Your task to perform on an android device: find photos in the google photos app Image 0: 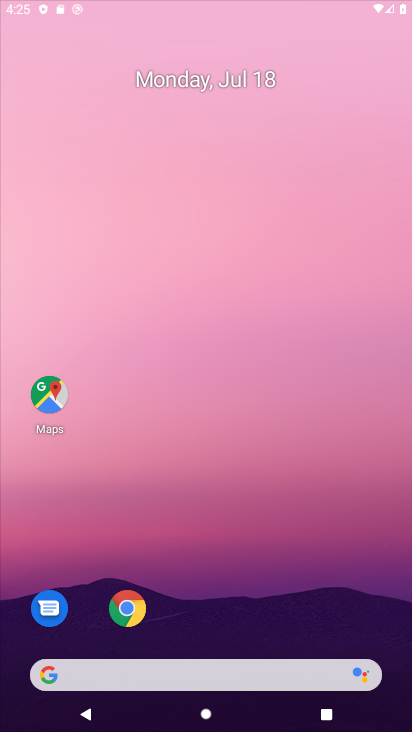
Step 0: click (156, 361)
Your task to perform on an android device: find photos in the google photos app Image 1: 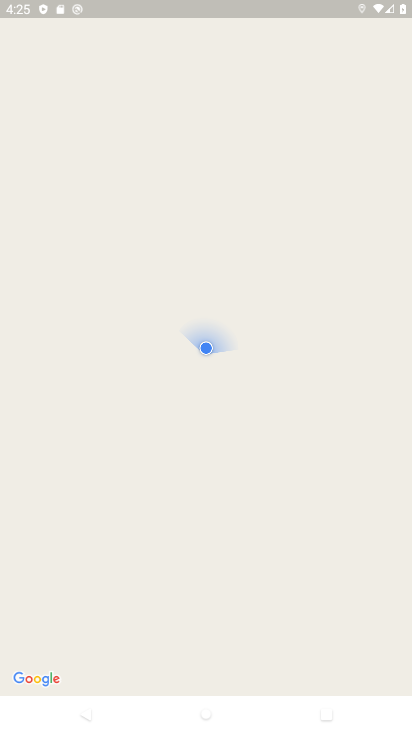
Step 1: press home button
Your task to perform on an android device: find photos in the google photos app Image 2: 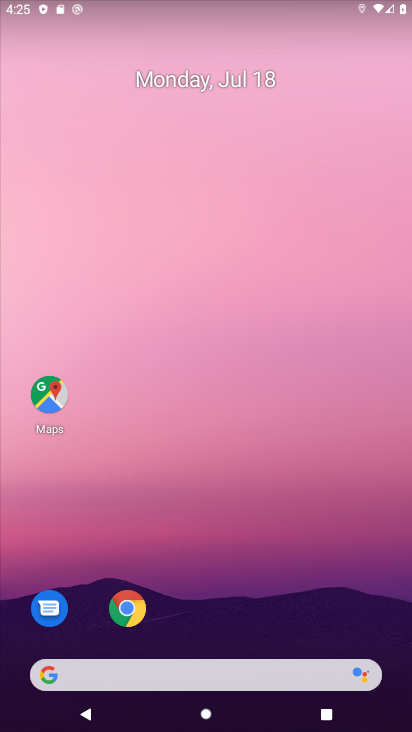
Step 2: drag from (36, 696) to (326, 250)
Your task to perform on an android device: find photos in the google photos app Image 3: 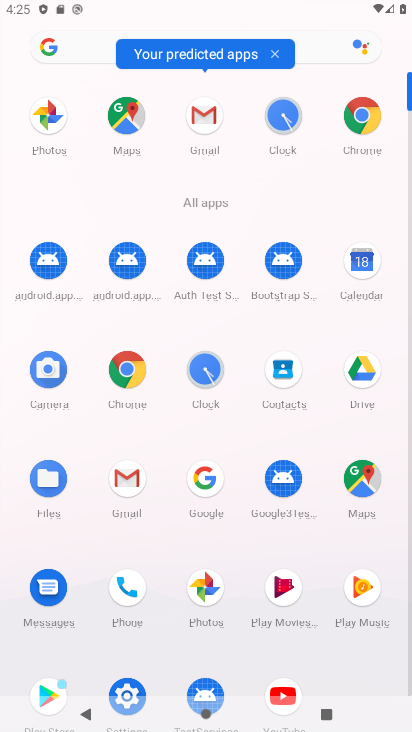
Step 3: click (201, 586)
Your task to perform on an android device: find photos in the google photos app Image 4: 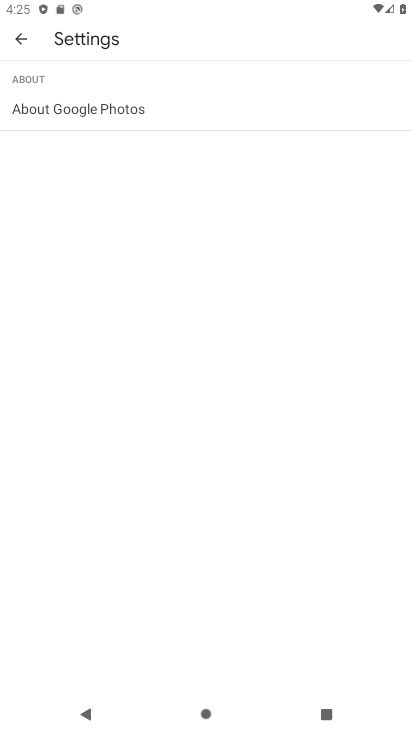
Step 4: click (15, 32)
Your task to perform on an android device: find photos in the google photos app Image 5: 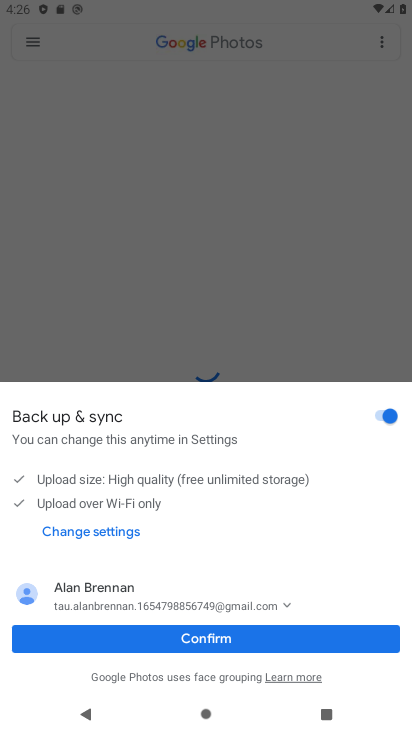
Step 5: click (141, 626)
Your task to perform on an android device: find photos in the google photos app Image 6: 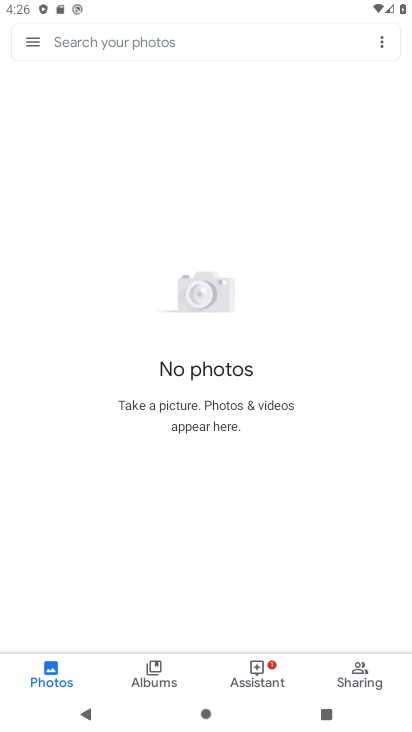
Step 6: task complete